Your task to perform on an android device: Open privacy settings Image 0: 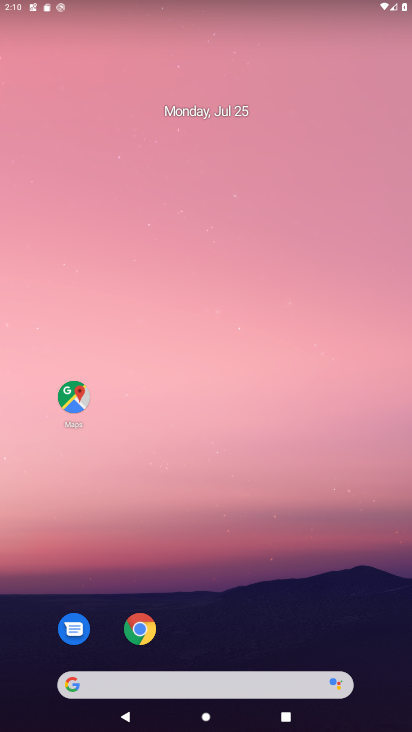
Step 0: drag from (277, 497) to (195, 77)
Your task to perform on an android device: Open privacy settings Image 1: 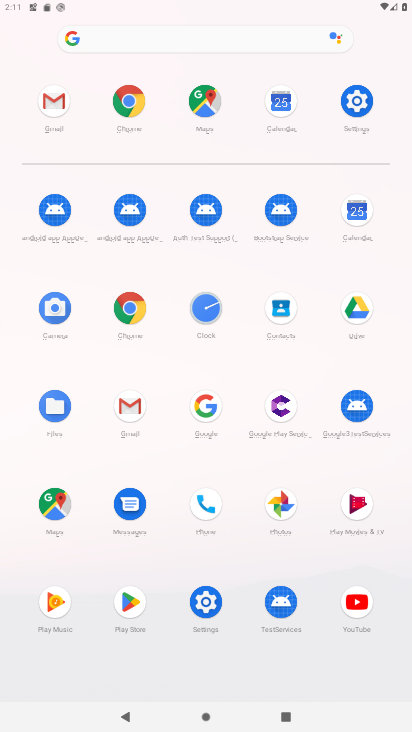
Step 1: click (353, 102)
Your task to perform on an android device: Open privacy settings Image 2: 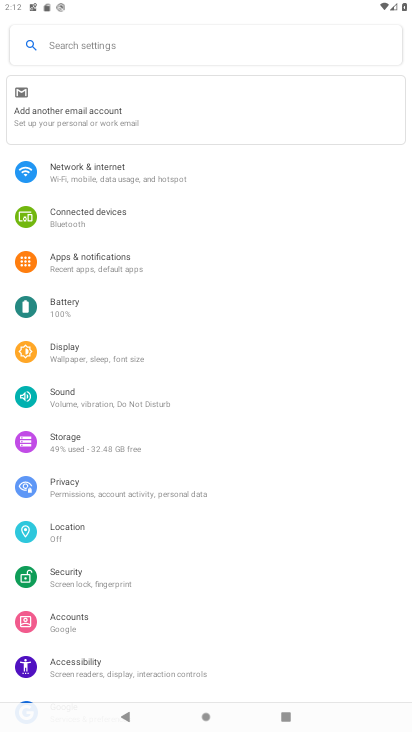
Step 2: click (113, 493)
Your task to perform on an android device: Open privacy settings Image 3: 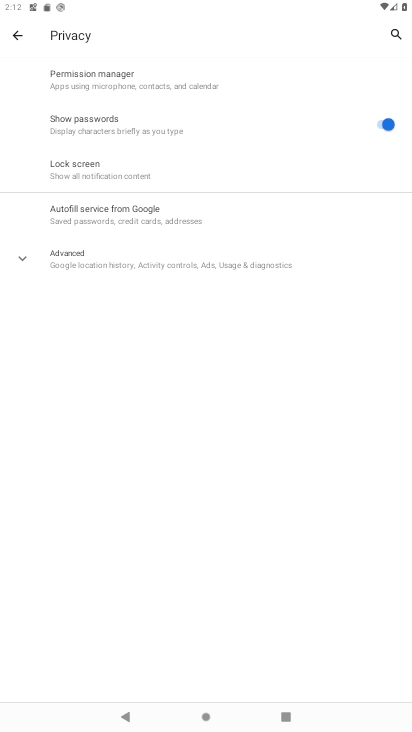
Step 3: task complete